Your task to perform on an android device: install app "Upside-Cash back on gas & food" Image 0: 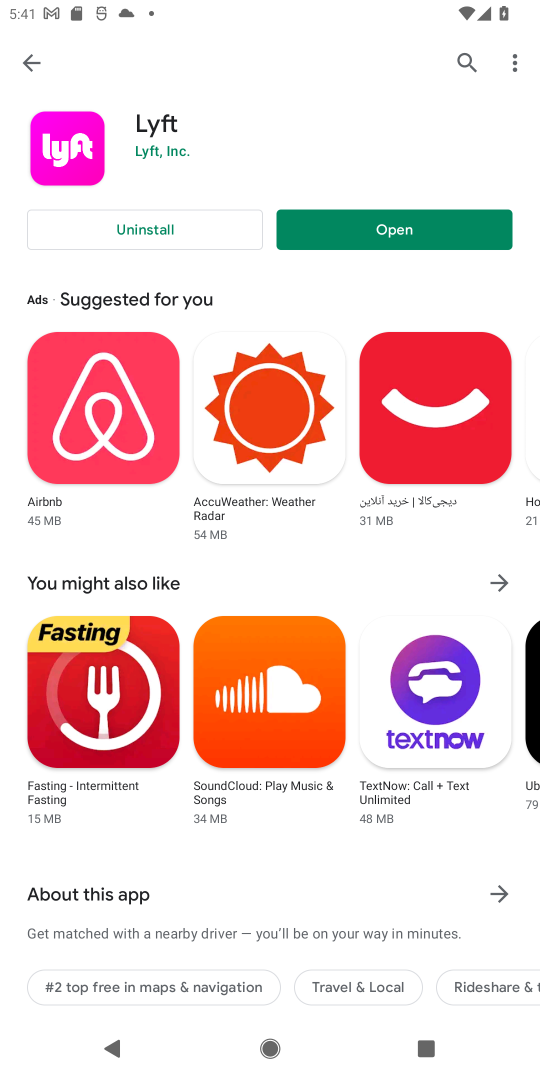
Step 0: click (23, 49)
Your task to perform on an android device: install app "Upside-Cash back on gas & food" Image 1: 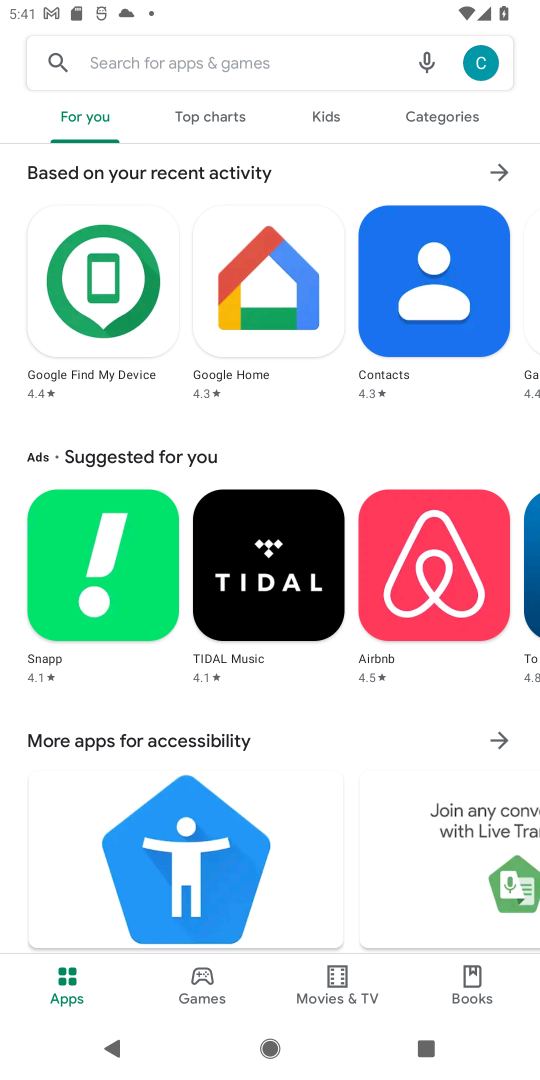
Step 1: click (204, 47)
Your task to perform on an android device: install app "Upside-Cash back on gas & food" Image 2: 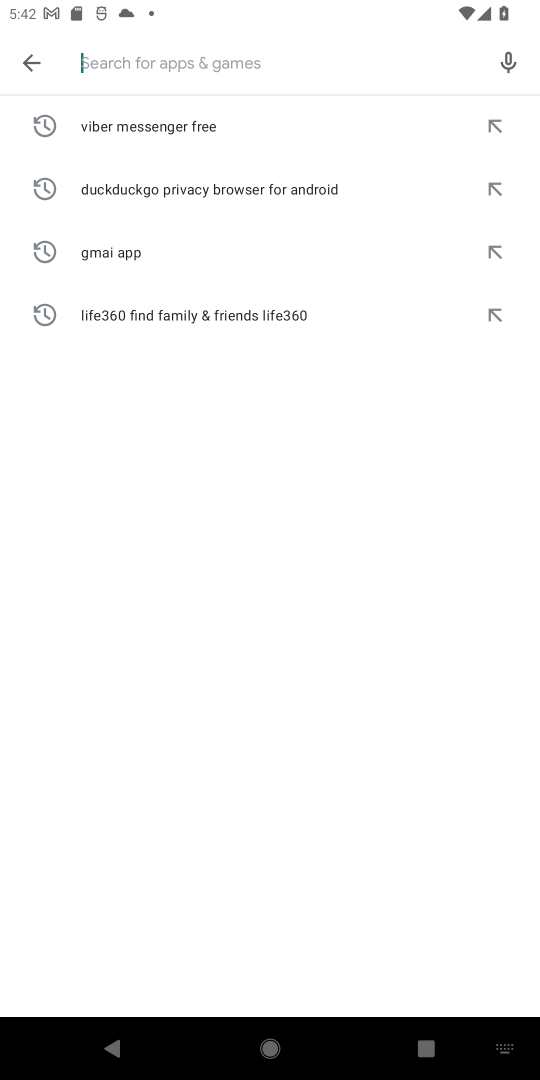
Step 2: type "Upside-Cash back on gas & food" "
Your task to perform on an android device: install app "Upside-Cash back on gas & food" Image 3: 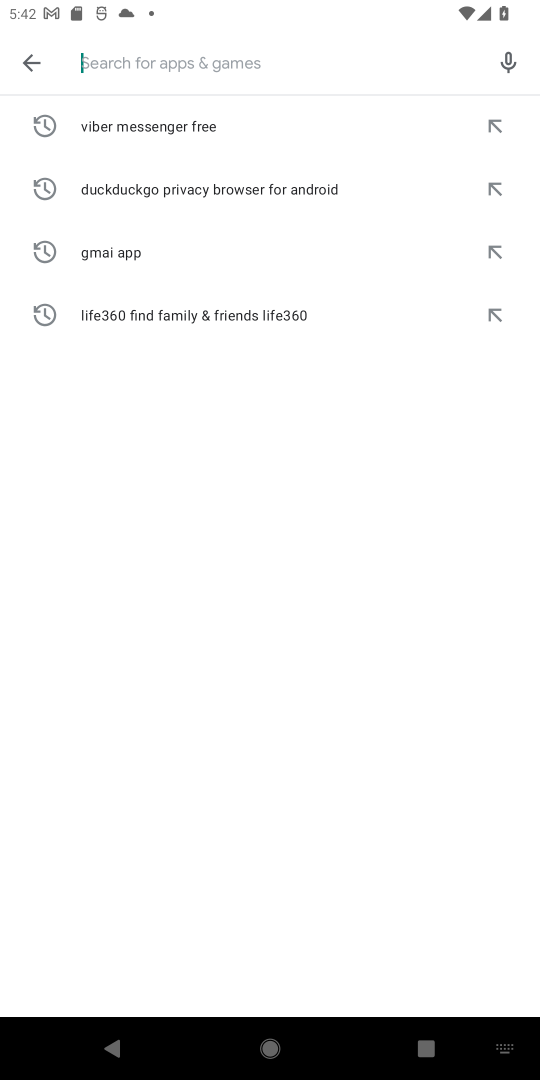
Step 3: click (319, 41)
Your task to perform on an android device: install app "Upside-Cash back on gas & food" Image 4: 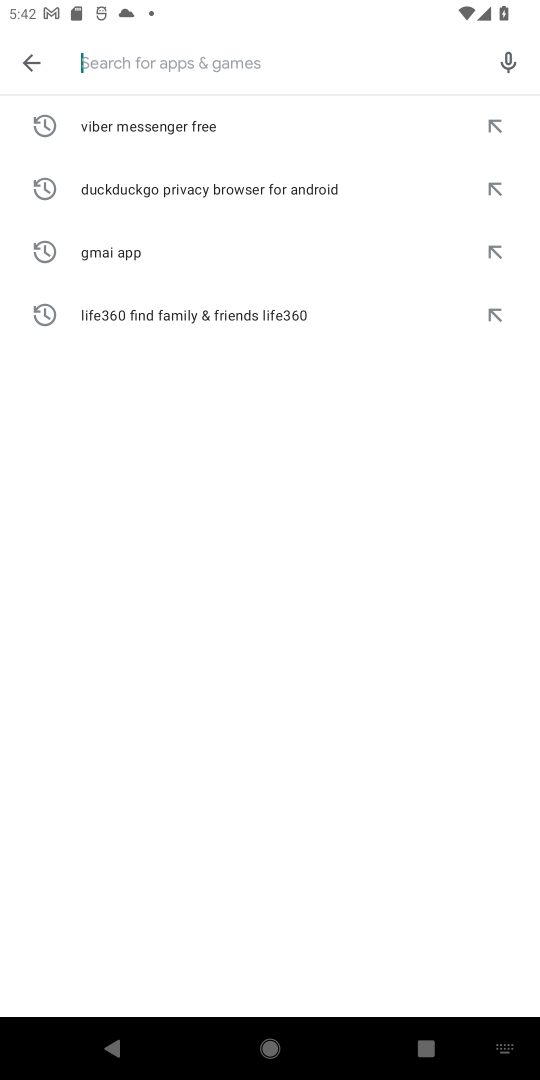
Step 4: type "Upside-Cash back on gas & food"
Your task to perform on an android device: install app "Upside-Cash back on gas & food" Image 5: 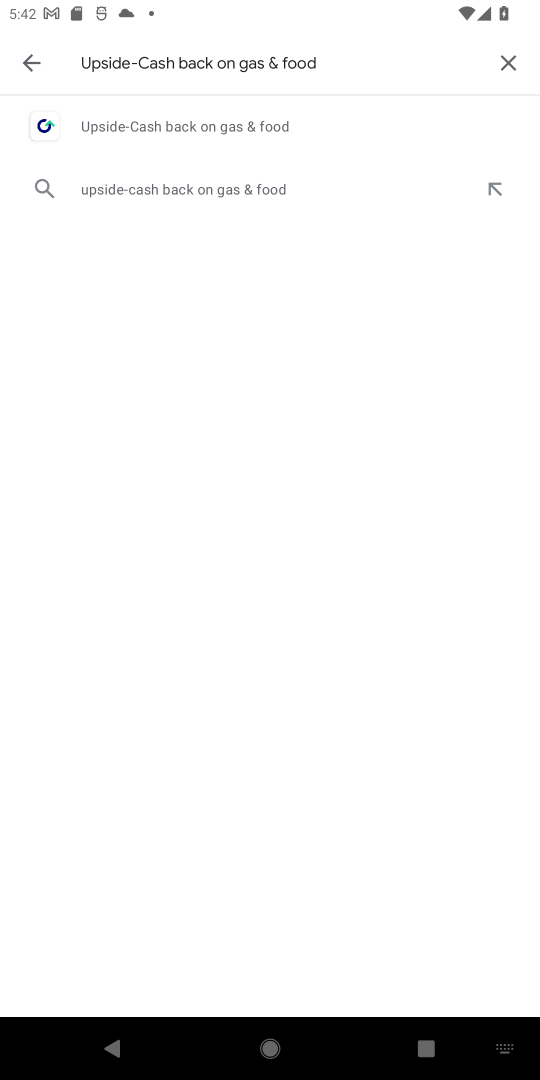
Step 5: click (237, 102)
Your task to perform on an android device: install app "Upside-Cash back on gas & food" Image 6: 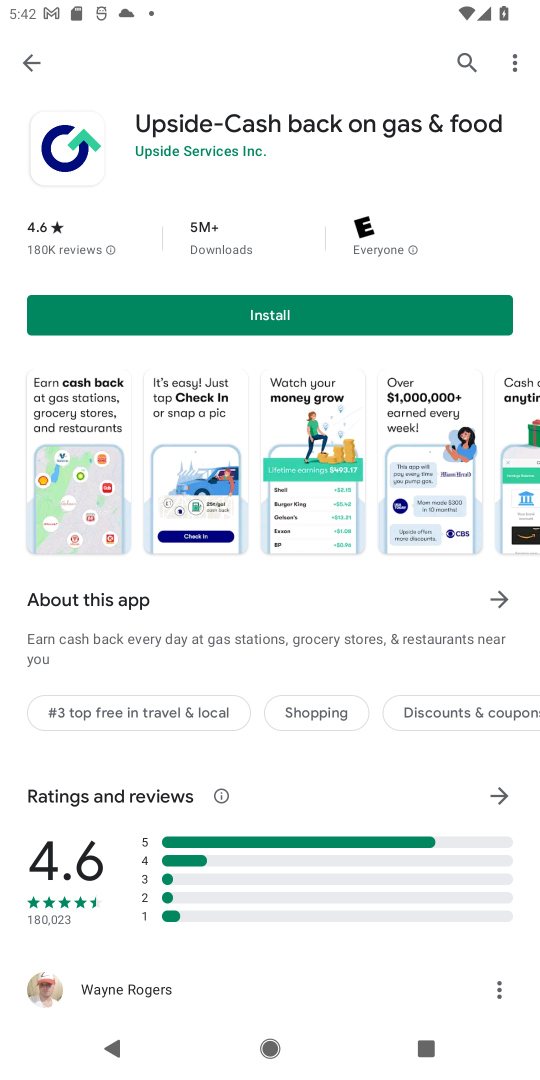
Step 6: click (323, 290)
Your task to perform on an android device: install app "Upside-Cash back on gas & food" Image 7: 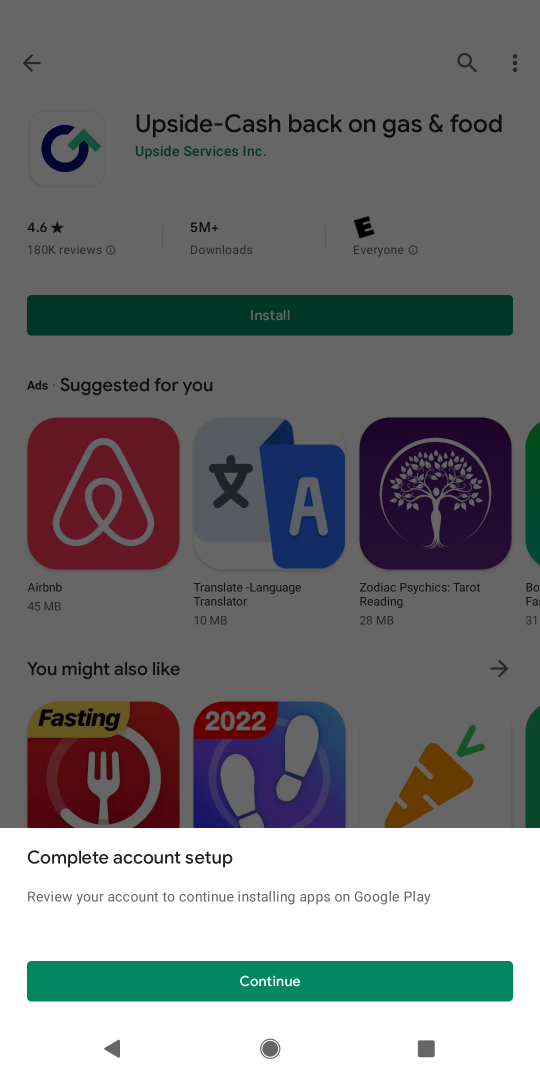
Step 7: task complete